Your task to perform on an android device: See recent photos Image 0: 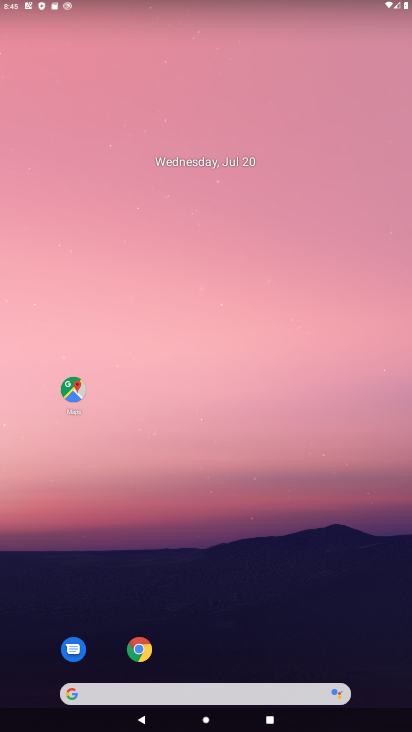
Step 0: drag from (214, 689) to (260, 132)
Your task to perform on an android device: See recent photos Image 1: 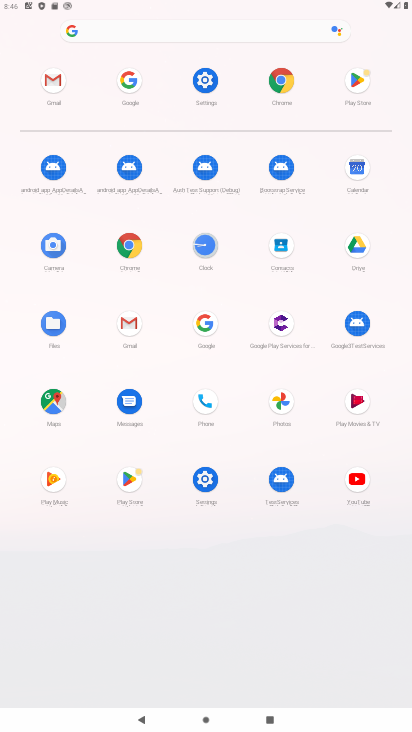
Step 1: click (281, 400)
Your task to perform on an android device: See recent photos Image 2: 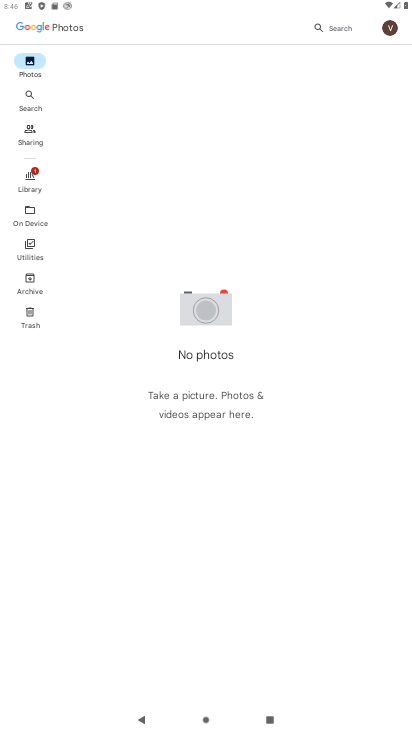
Step 2: click (32, 137)
Your task to perform on an android device: See recent photos Image 3: 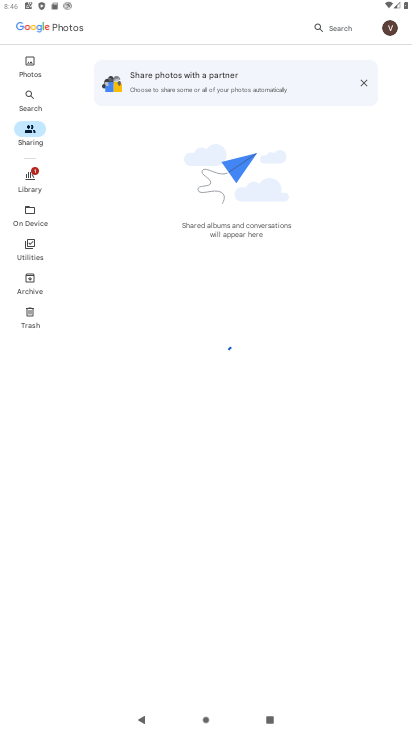
Step 3: click (36, 174)
Your task to perform on an android device: See recent photos Image 4: 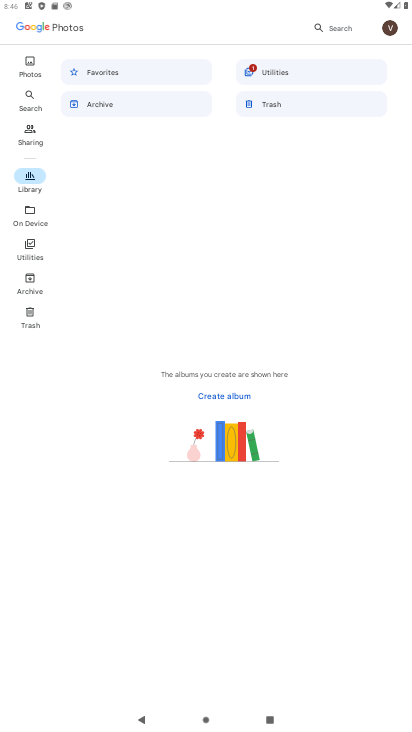
Step 4: click (267, 71)
Your task to perform on an android device: See recent photos Image 5: 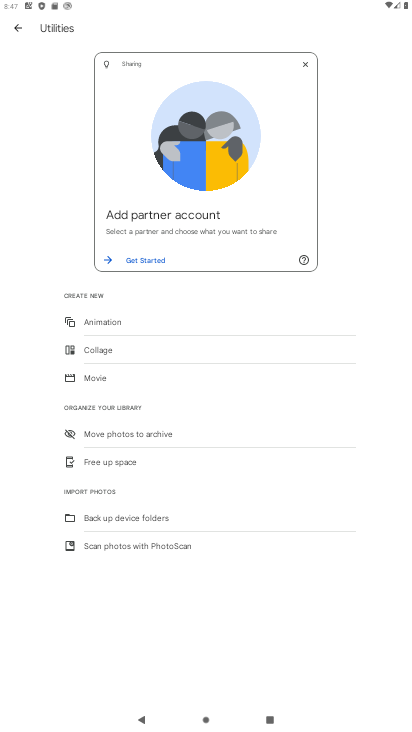
Step 5: press back button
Your task to perform on an android device: See recent photos Image 6: 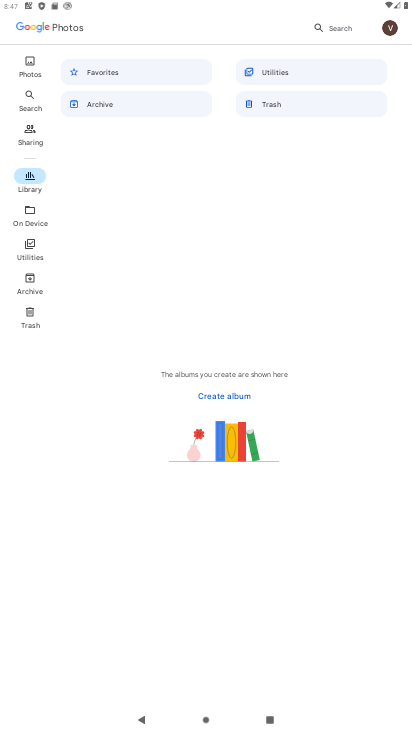
Step 6: click (34, 218)
Your task to perform on an android device: See recent photos Image 7: 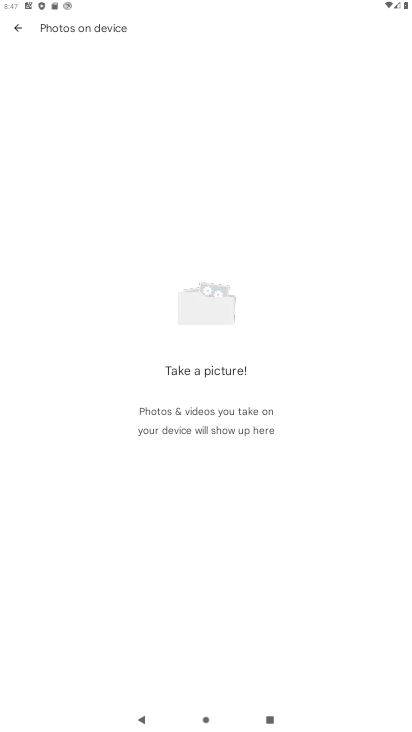
Step 7: task complete